Your task to perform on an android device: add a label to a message in the gmail app Image 0: 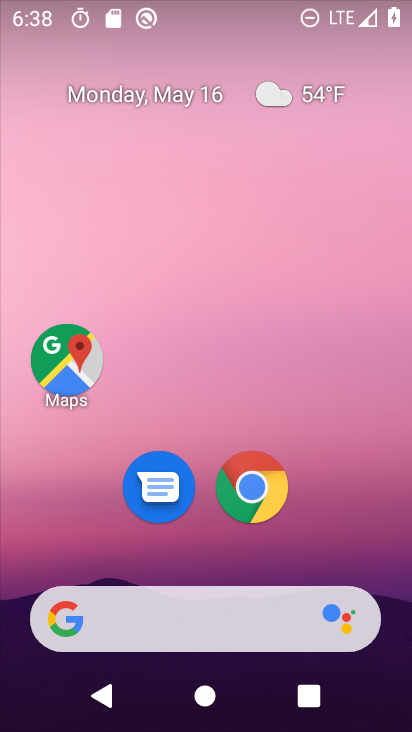
Step 0: drag from (212, 587) to (258, 253)
Your task to perform on an android device: add a label to a message in the gmail app Image 1: 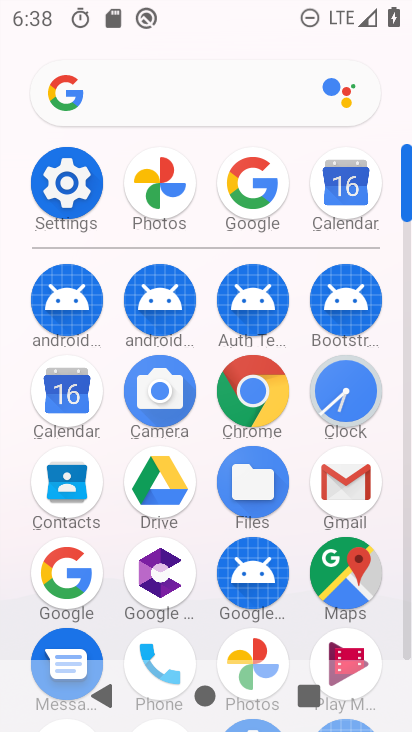
Step 1: click (330, 493)
Your task to perform on an android device: add a label to a message in the gmail app Image 2: 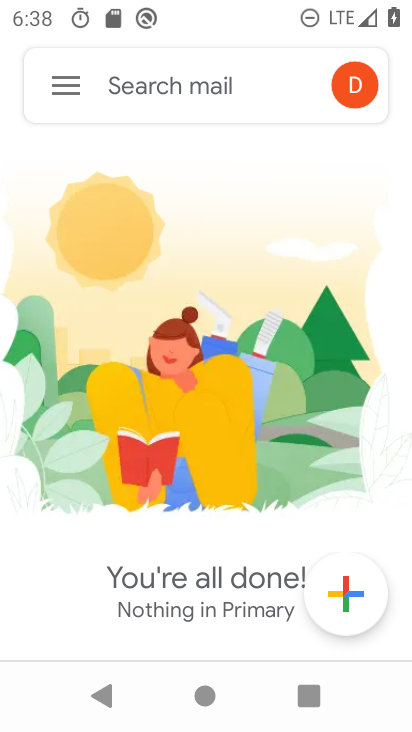
Step 2: task complete